Your task to perform on an android device: Open the calendar app, open the side menu, and click the "Day" option Image 0: 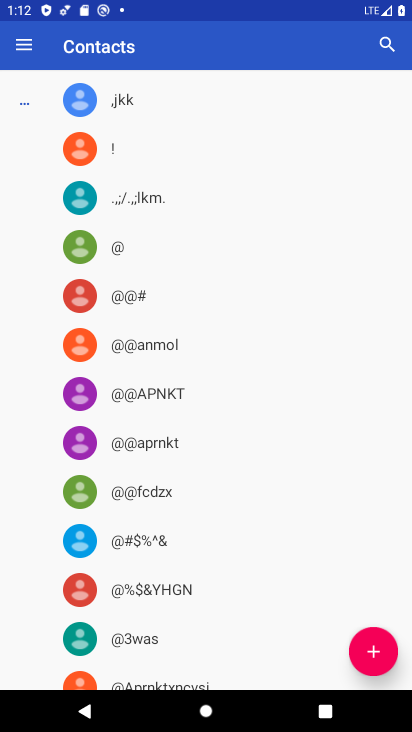
Step 0: press home button
Your task to perform on an android device: Open the calendar app, open the side menu, and click the "Day" option Image 1: 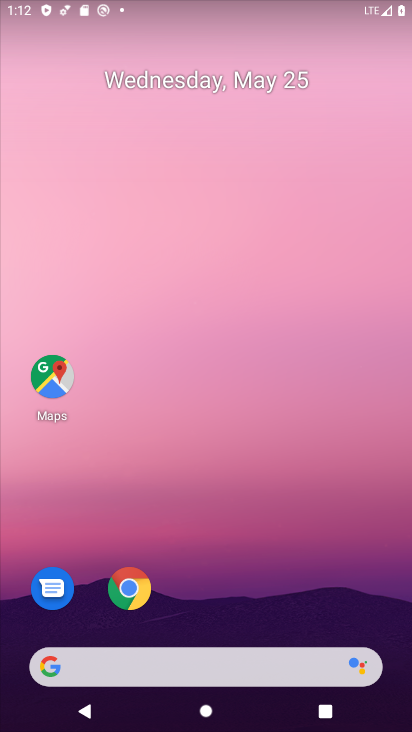
Step 1: drag from (279, 615) to (297, 132)
Your task to perform on an android device: Open the calendar app, open the side menu, and click the "Day" option Image 2: 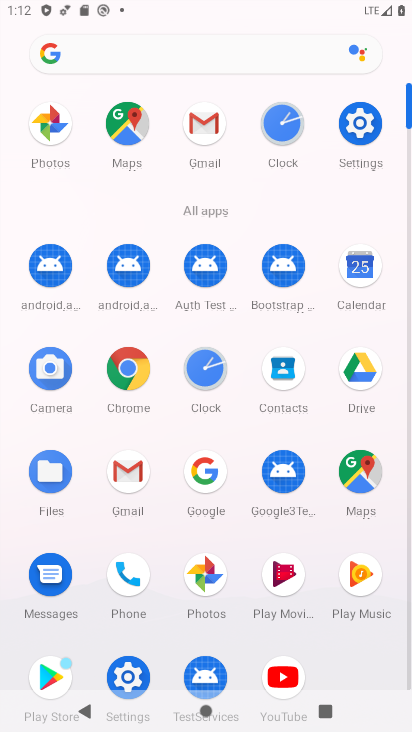
Step 2: click (367, 274)
Your task to perform on an android device: Open the calendar app, open the side menu, and click the "Day" option Image 3: 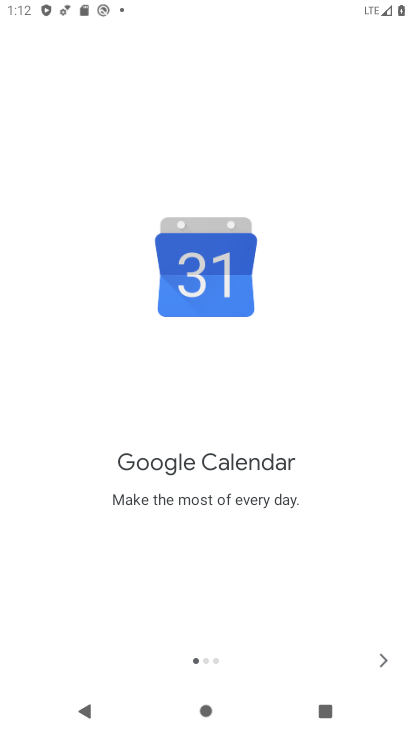
Step 3: click (381, 664)
Your task to perform on an android device: Open the calendar app, open the side menu, and click the "Day" option Image 4: 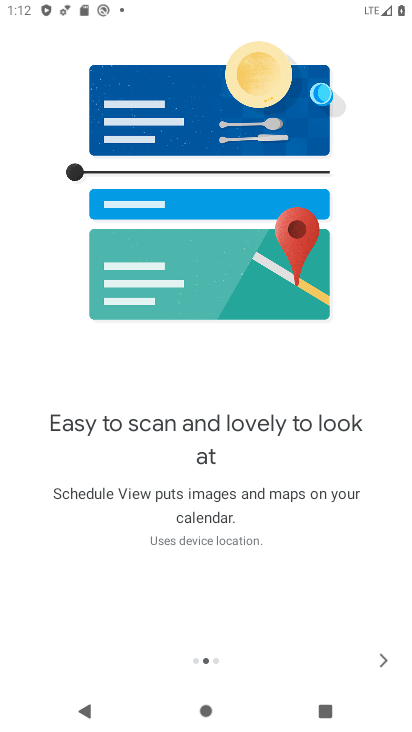
Step 4: click (381, 665)
Your task to perform on an android device: Open the calendar app, open the side menu, and click the "Day" option Image 5: 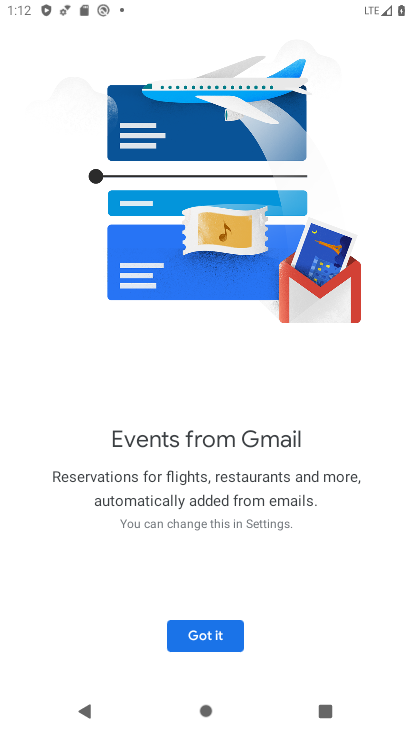
Step 5: click (207, 644)
Your task to perform on an android device: Open the calendar app, open the side menu, and click the "Day" option Image 6: 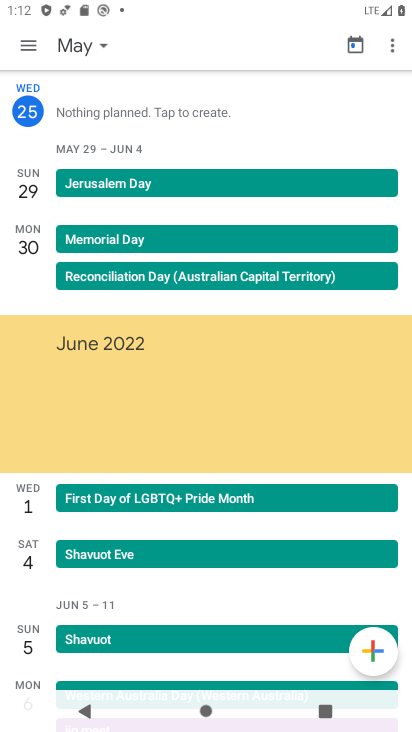
Step 6: click (30, 46)
Your task to perform on an android device: Open the calendar app, open the side menu, and click the "Day" option Image 7: 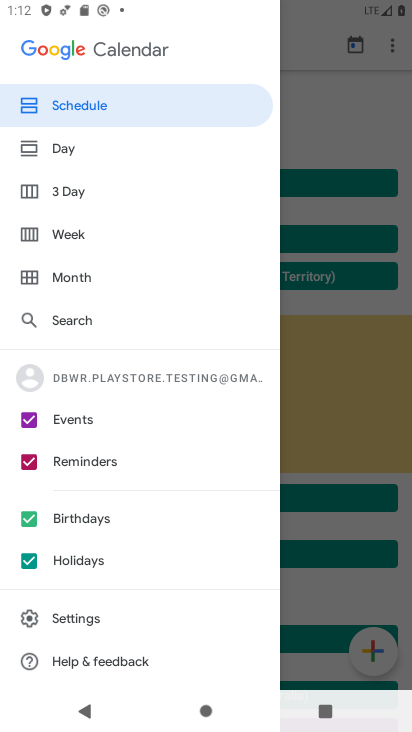
Step 7: click (60, 144)
Your task to perform on an android device: Open the calendar app, open the side menu, and click the "Day" option Image 8: 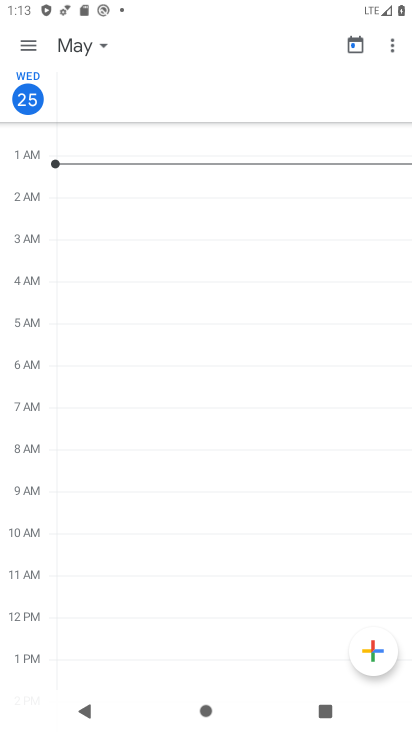
Step 8: task complete